Your task to perform on an android device: What's on my calendar tomorrow? Image 0: 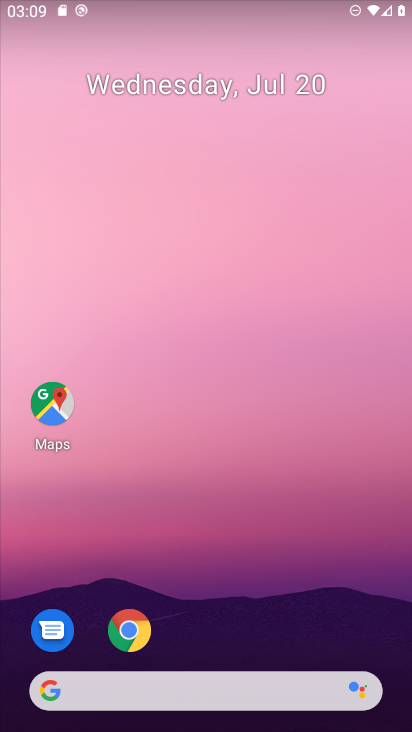
Step 0: drag from (376, 512) to (355, 138)
Your task to perform on an android device: What's on my calendar tomorrow? Image 1: 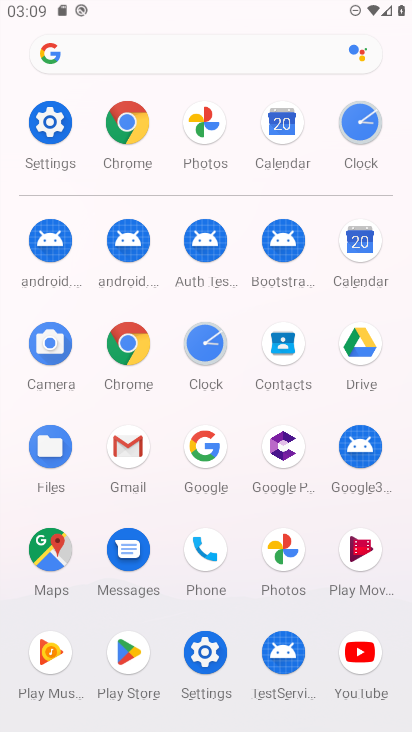
Step 1: click (364, 253)
Your task to perform on an android device: What's on my calendar tomorrow? Image 2: 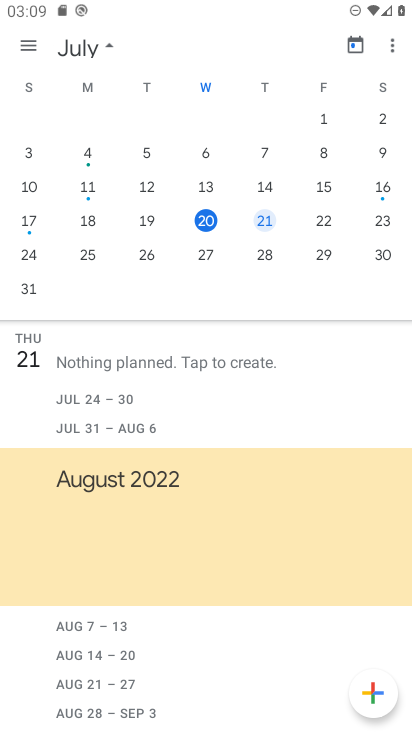
Step 2: click (262, 219)
Your task to perform on an android device: What's on my calendar tomorrow? Image 3: 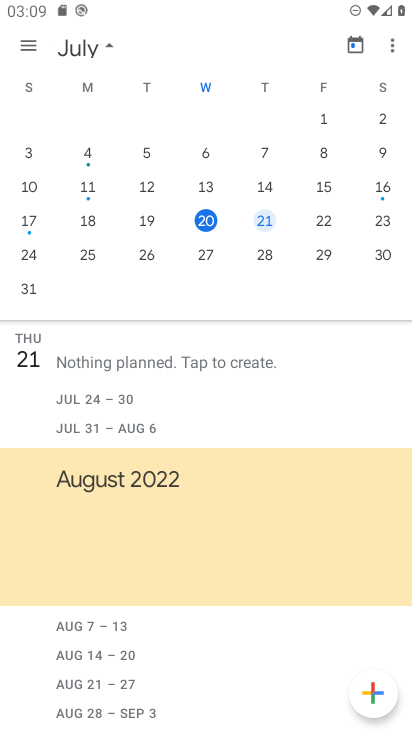
Step 3: task complete